Your task to perform on an android device: add a contact Image 0: 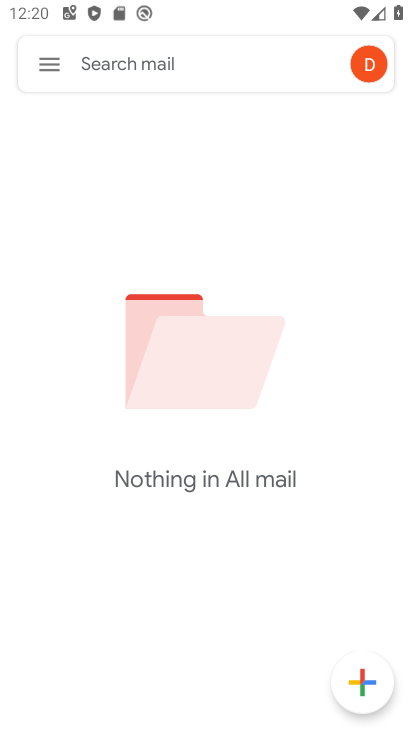
Step 0: press home button
Your task to perform on an android device: add a contact Image 1: 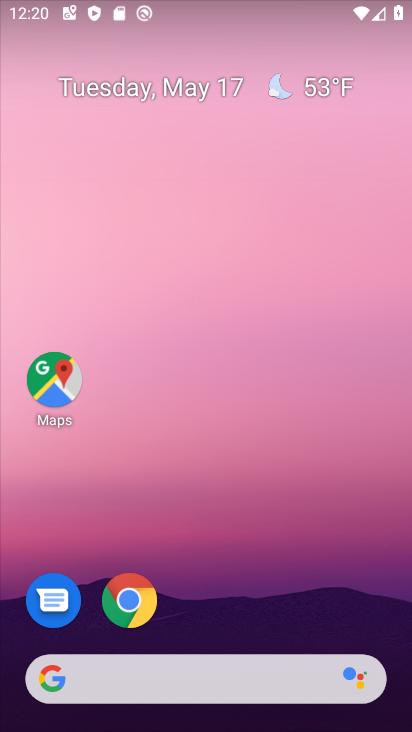
Step 1: drag from (222, 626) to (232, 175)
Your task to perform on an android device: add a contact Image 2: 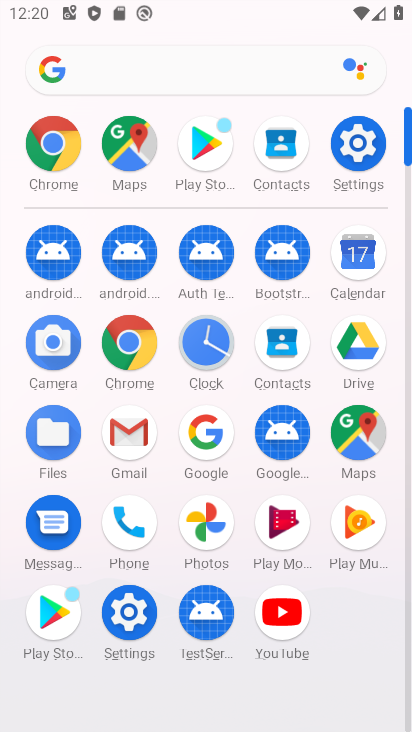
Step 2: click (283, 153)
Your task to perform on an android device: add a contact Image 3: 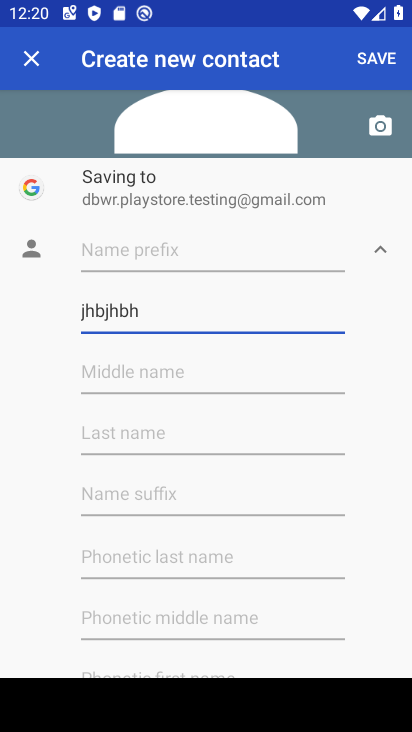
Step 3: click (378, 54)
Your task to perform on an android device: add a contact Image 4: 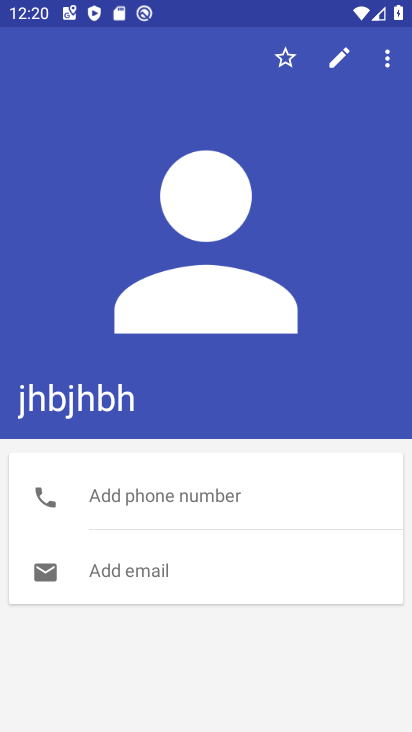
Step 4: task complete